Your task to perform on an android device: turn smart compose on in the gmail app Image 0: 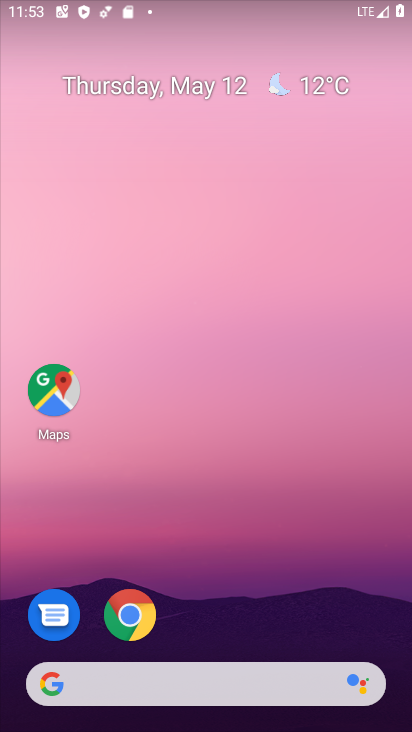
Step 0: drag from (259, 554) to (264, 202)
Your task to perform on an android device: turn smart compose on in the gmail app Image 1: 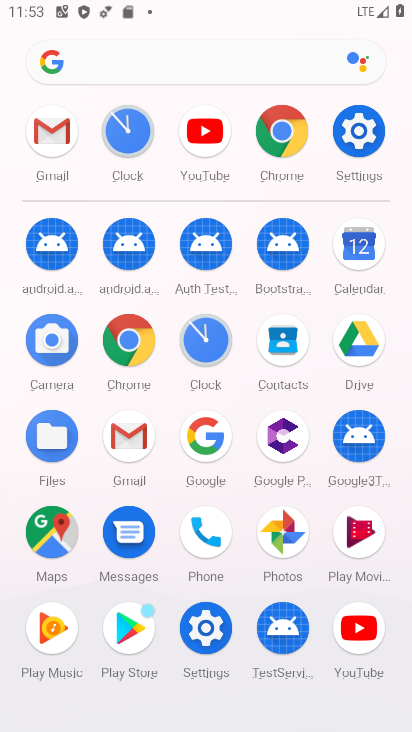
Step 1: click (65, 150)
Your task to perform on an android device: turn smart compose on in the gmail app Image 2: 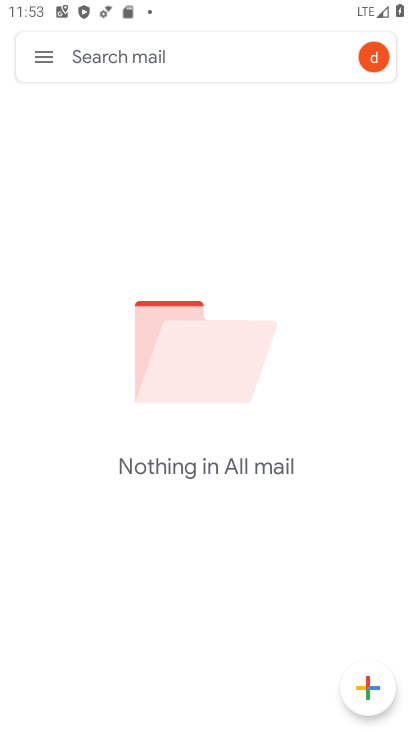
Step 2: click (50, 73)
Your task to perform on an android device: turn smart compose on in the gmail app Image 3: 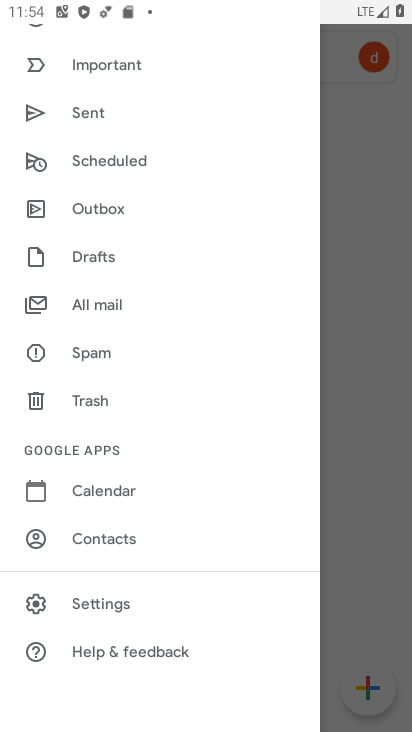
Step 3: click (135, 600)
Your task to perform on an android device: turn smart compose on in the gmail app Image 4: 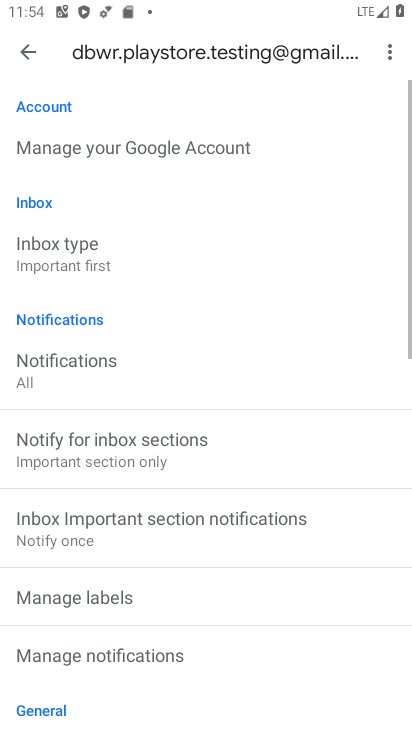
Step 4: task complete